Your task to perform on an android device: visit the assistant section in the google photos Image 0: 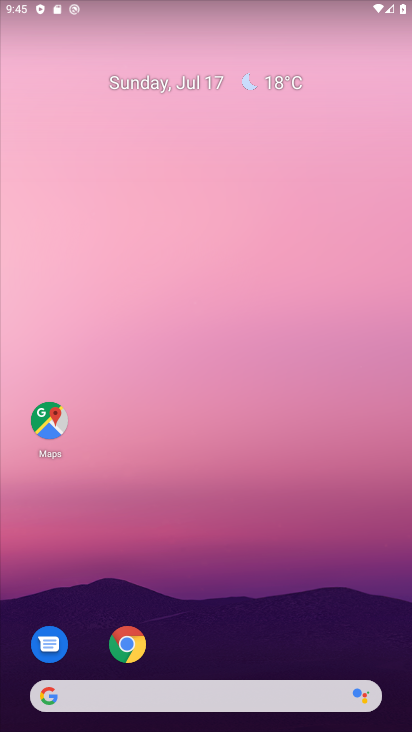
Step 0: click (117, 623)
Your task to perform on an android device: visit the assistant section in the google photos Image 1: 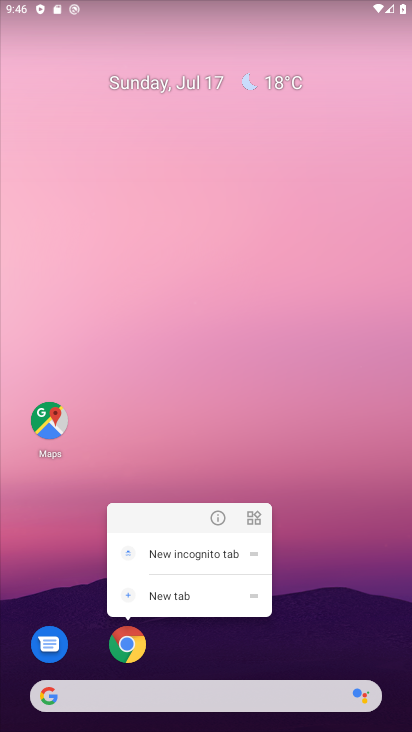
Step 1: click (324, 529)
Your task to perform on an android device: visit the assistant section in the google photos Image 2: 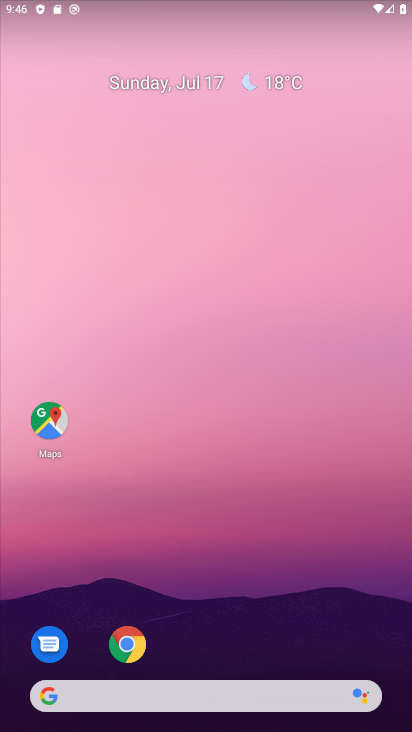
Step 2: drag from (381, 615) to (245, 13)
Your task to perform on an android device: visit the assistant section in the google photos Image 3: 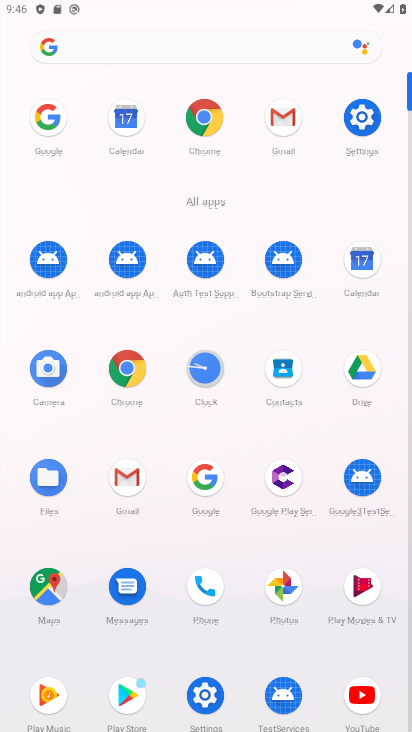
Step 3: click (279, 627)
Your task to perform on an android device: visit the assistant section in the google photos Image 4: 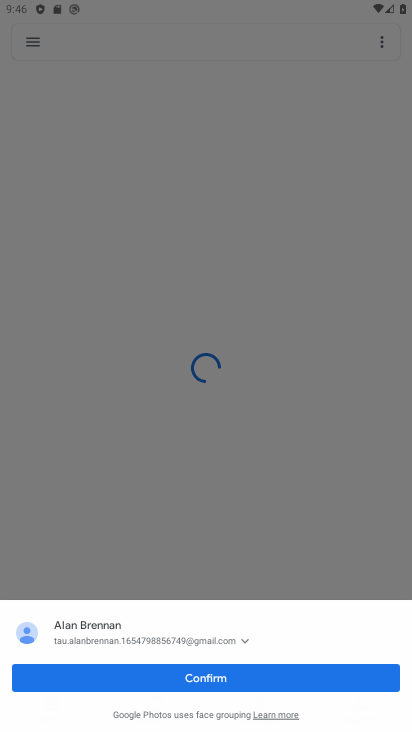
Step 4: click (265, 702)
Your task to perform on an android device: visit the assistant section in the google photos Image 5: 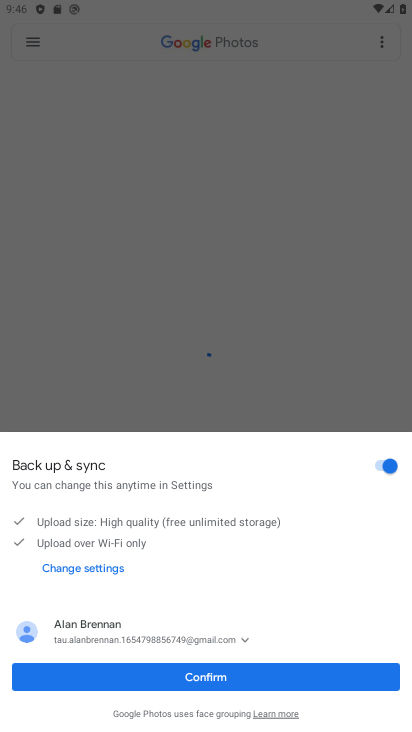
Step 5: click (251, 671)
Your task to perform on an android device: visit the assistant section in the google photos Image 6: 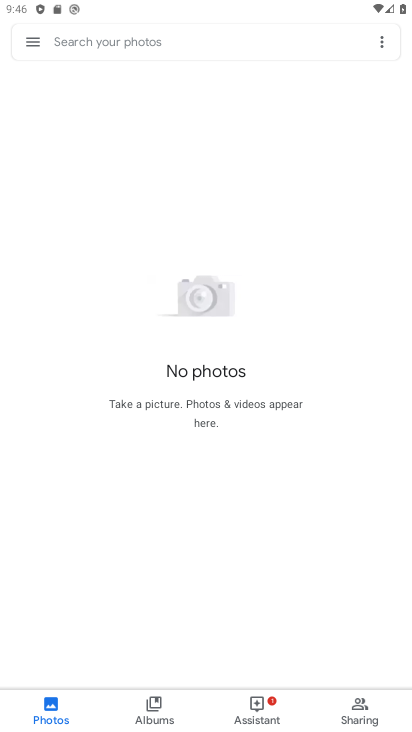
Step 6: click (265, 718)
Your task to perform on an android device: visit the assistant section in the google photos Image 7: 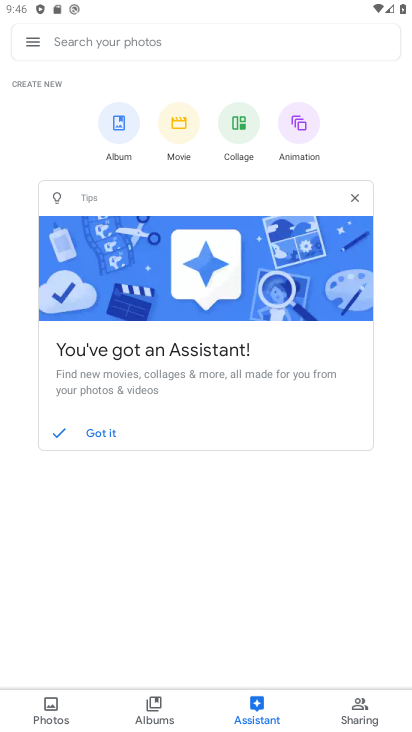
Step 7: task complete